Your task to perform on an android device: see tabs open on other devices in the chrome app Image 0: 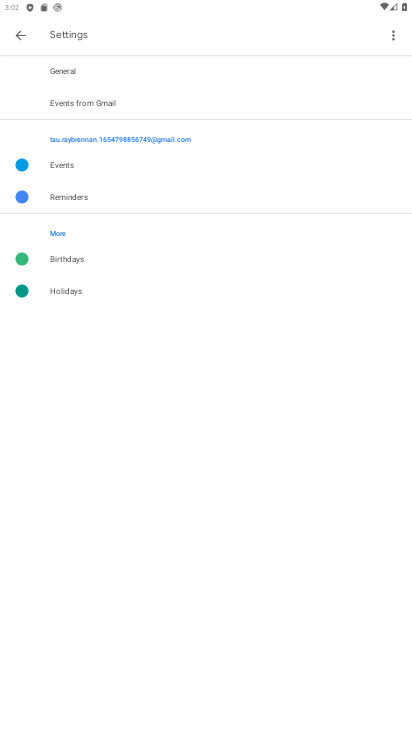
Step 0: press home button
Your task to perform on an android device: see tabs open on other devices in the chrome app Image 1: 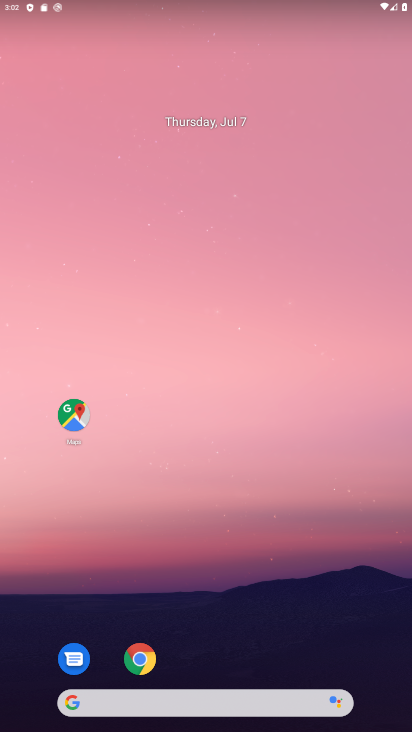
Step 1: click (148, 658)
Your task to perform on an android device: see tabs open on other devices in the chrome app Image 2: 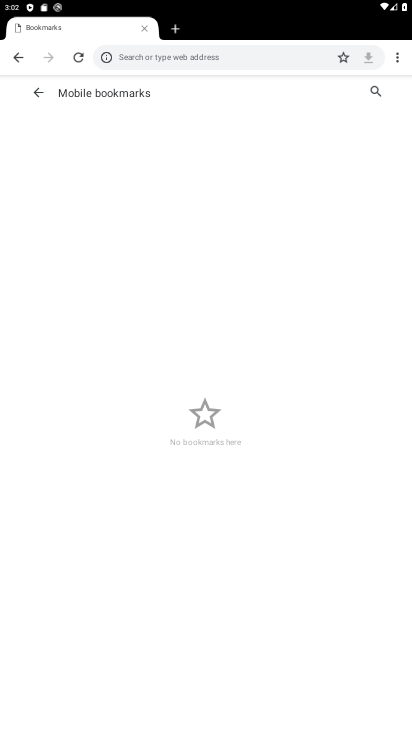
Step 2: click (397, 62)
Your task to perform on an android device: see tabs open on other devices in the chrome app Image 3: 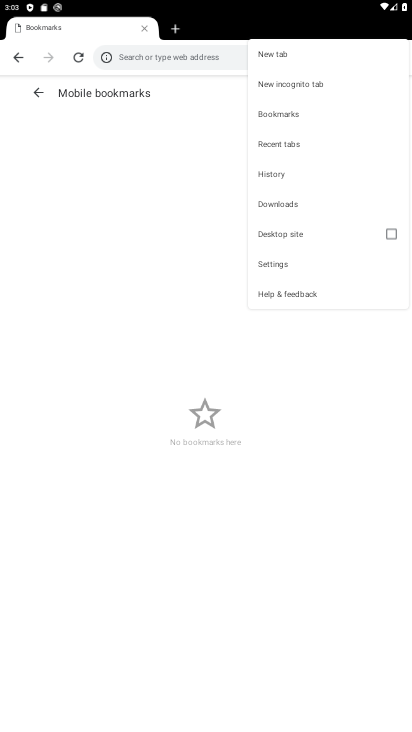
Step 3: click (295, 138)
Your task to perform on an android device: see tabs open on other devices in the chrome app Image 4: 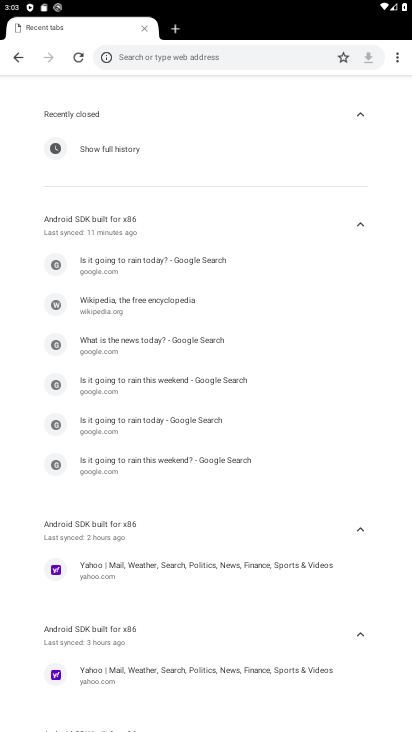
Step 4: task complete